Your task to perform on an android device: Open privacy settings Image 0: 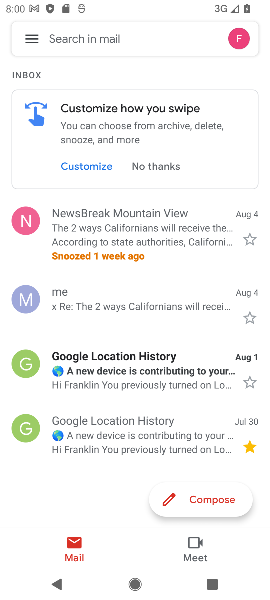
Step 0: press home button
Your task to perform on an android device: Open privacy settings Image 1: 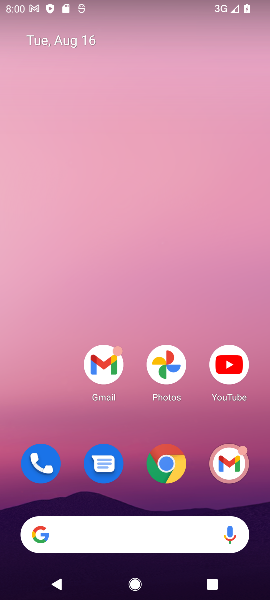
Step 1: drag from (134, 497) to (160, 181)
Your task to perform on an android device: Open privacy settings Image 2: 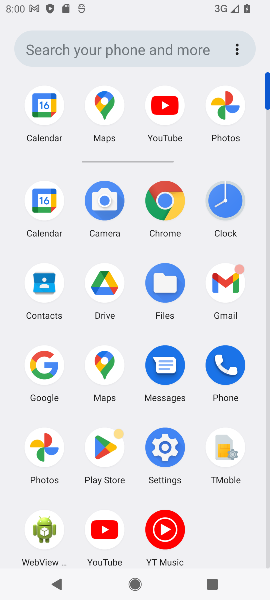
Step 2: click (164, 452)
Your task to perform on an android device: Open privacy settings Image 3: 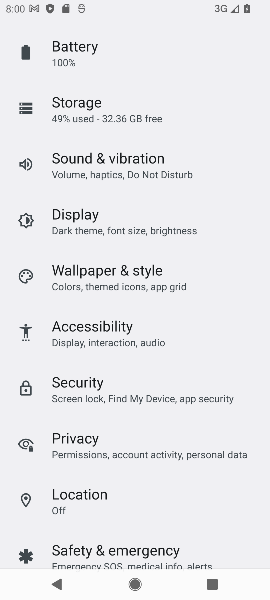
Step 3: click (92, 454)
Your task to perform on an android device: Open privacy settings Image 4: 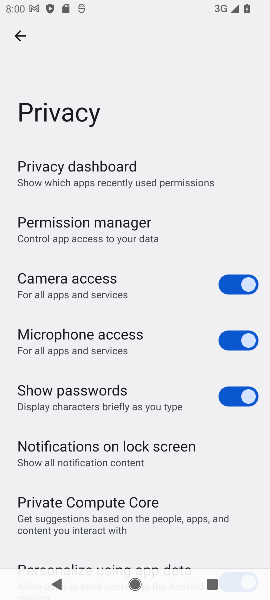
Step 4: task complete